Your task to perform on an android device: open app "Microsoft Outlook" Image 0: 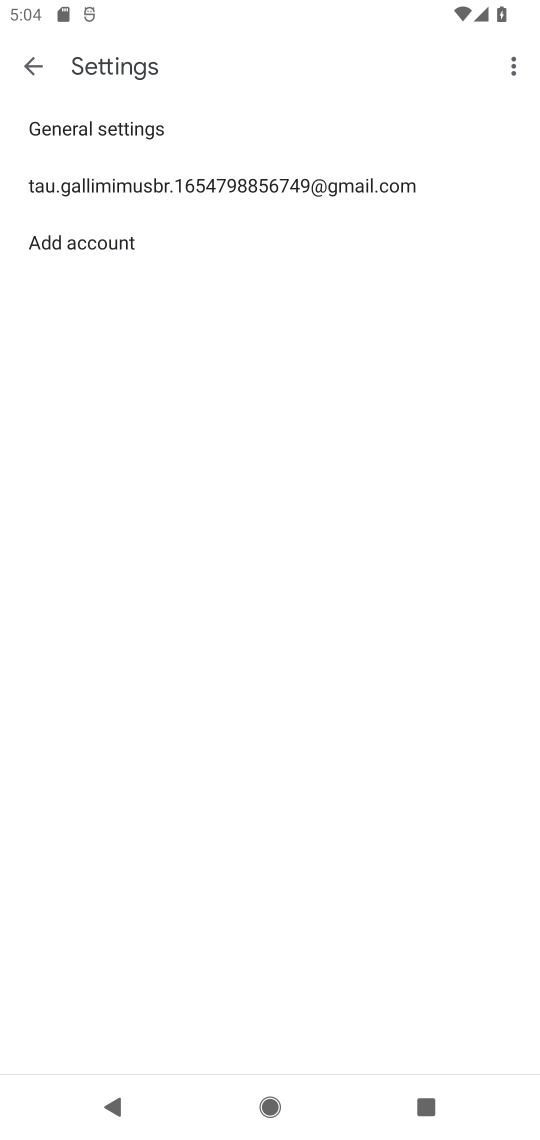
Step 0: press home button
Your task to perform on an android device: open app "Microsoft Outlook" Image 1: 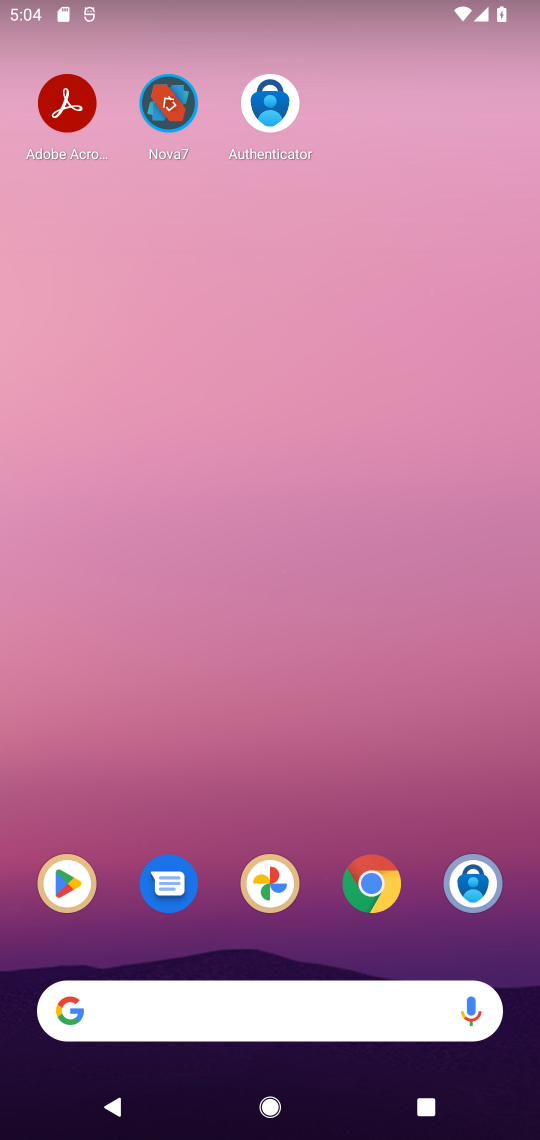
Step 1: drag from (275, 919) to (310, 444)
Your task to perform on an android device: open app "Microsoft Outlook" Image 2: 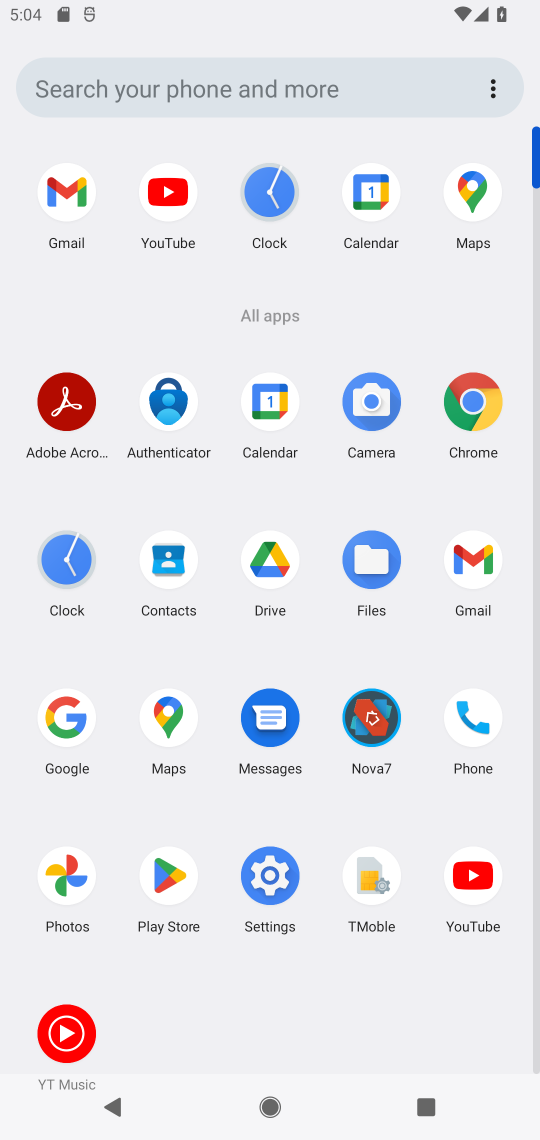
Step 2: click (176, 874)
Your task to perform on an android device: open app "Microsoft Outlook" Image 3: 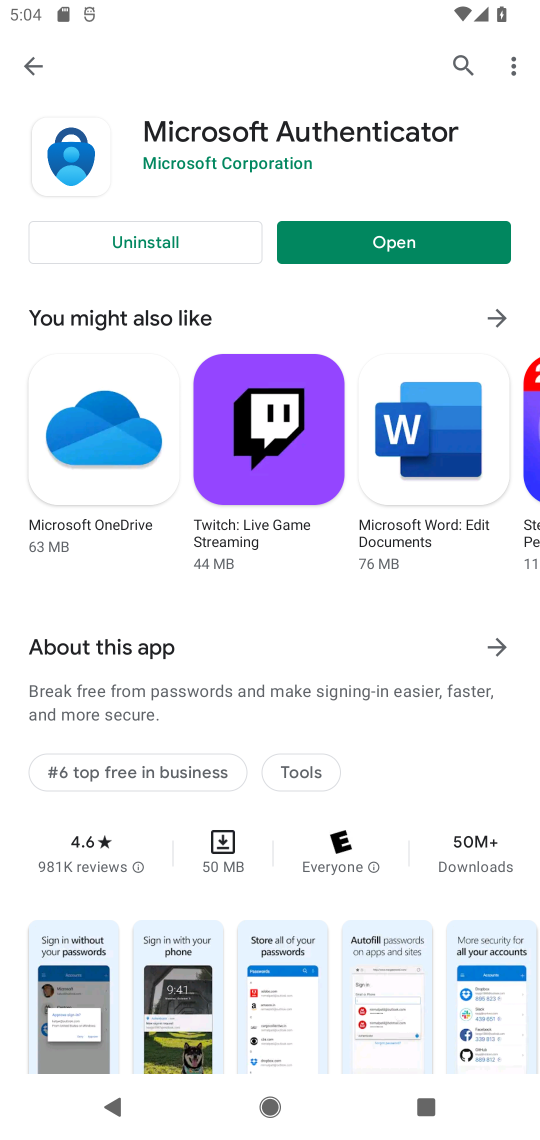
Step 3: click (25, 64)
Your task to perform on an android device: open app "Microsoft Outlook" Image 4: 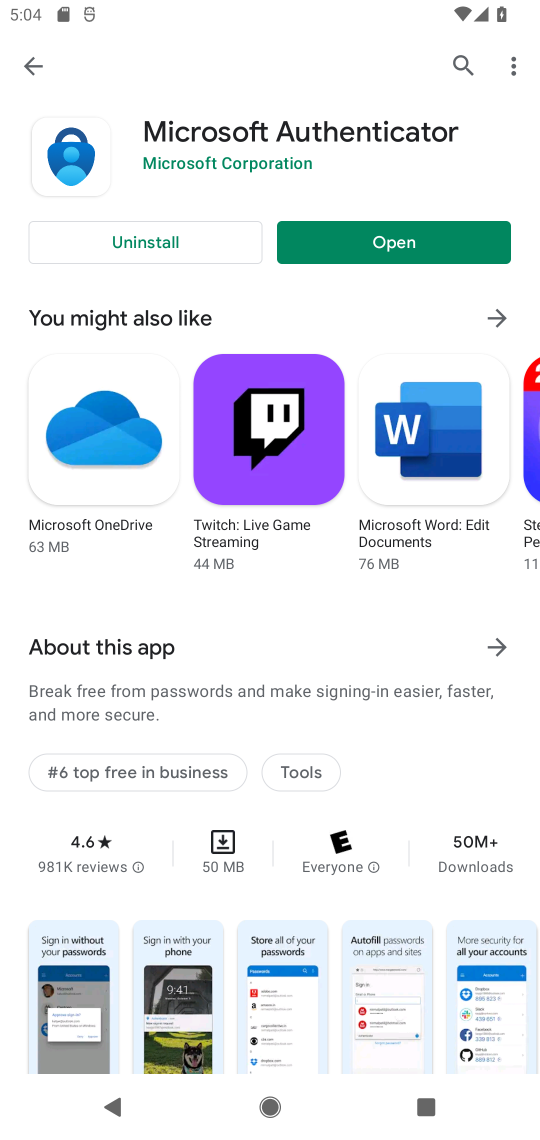
Step 4: click (32, 62)
Your task to perform on an android device: open app "Microsoft Outlook" Image 5: 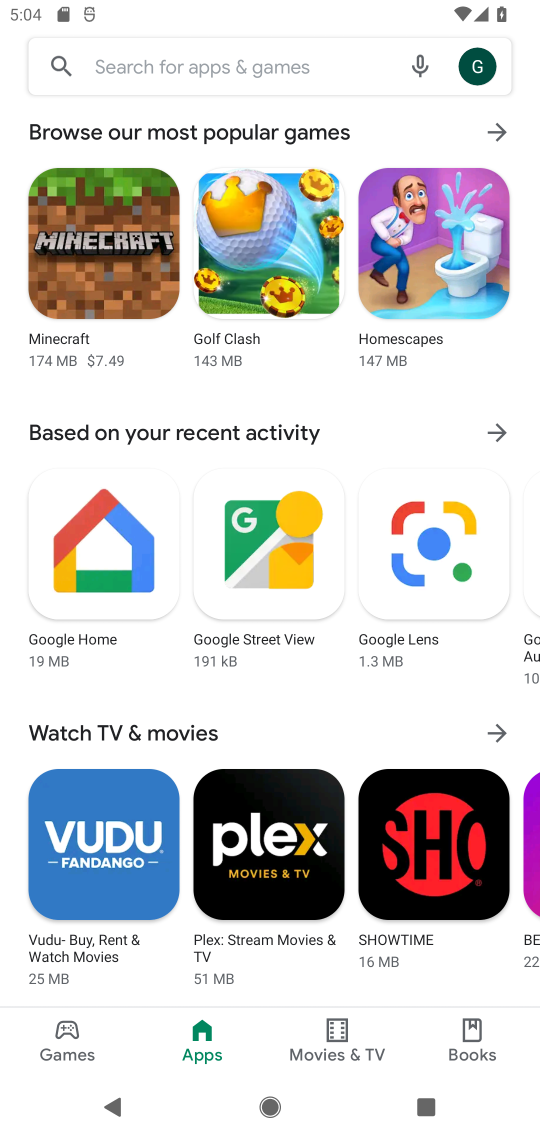
Step 5: click (138, 60)
Your task to perform on an android device: open app "Microsoft Outlook" Image 6: 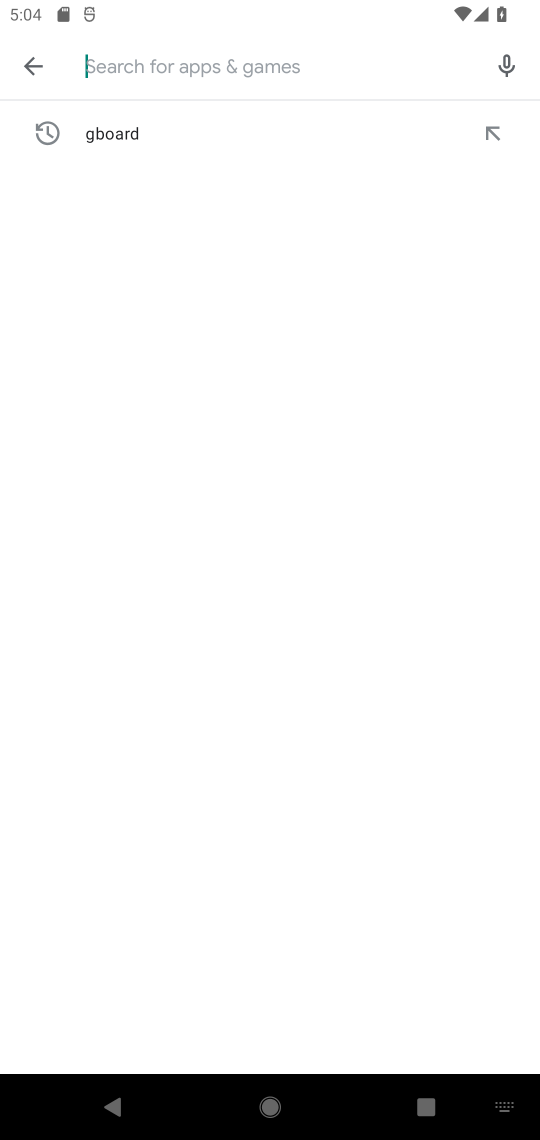
Step 6: type "Microsoft Outlook"
Your task to perform on an android device: open app "Microsoft Outlook" Image 7: 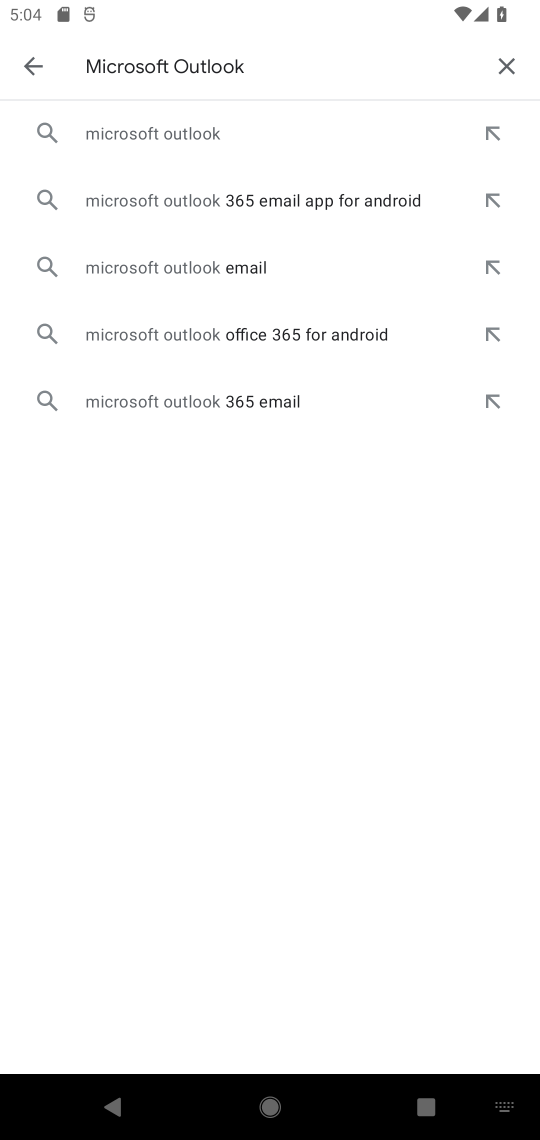
Step 7: click (189, 136)
Your task to perform on an android device: open app "Microsoft Outlook" Image 8: 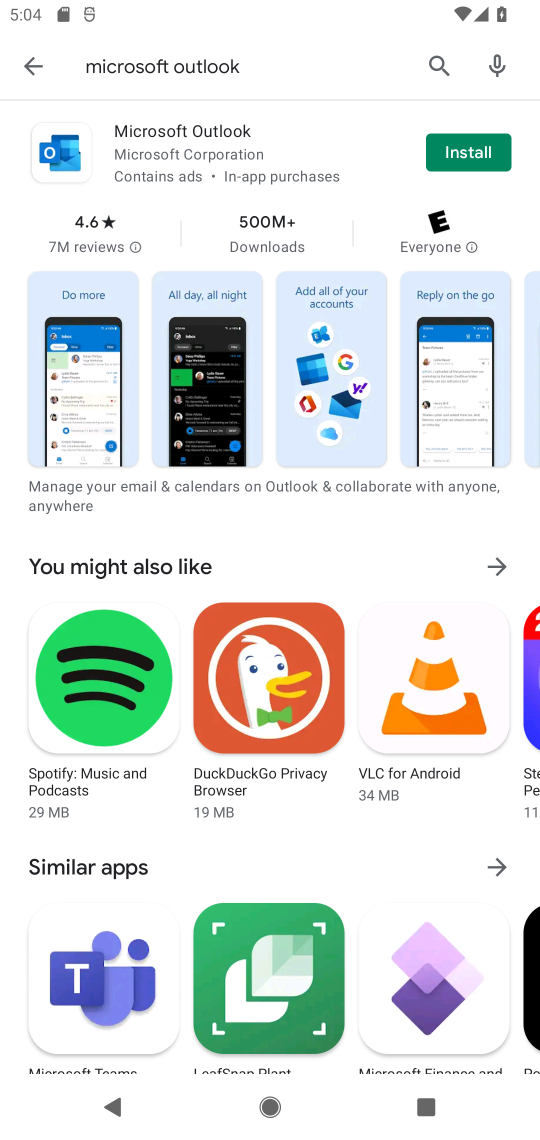
Step 8: click (458, 164)
Your task to perform on an android device: open app "Microsoft Outlook" Image 9: 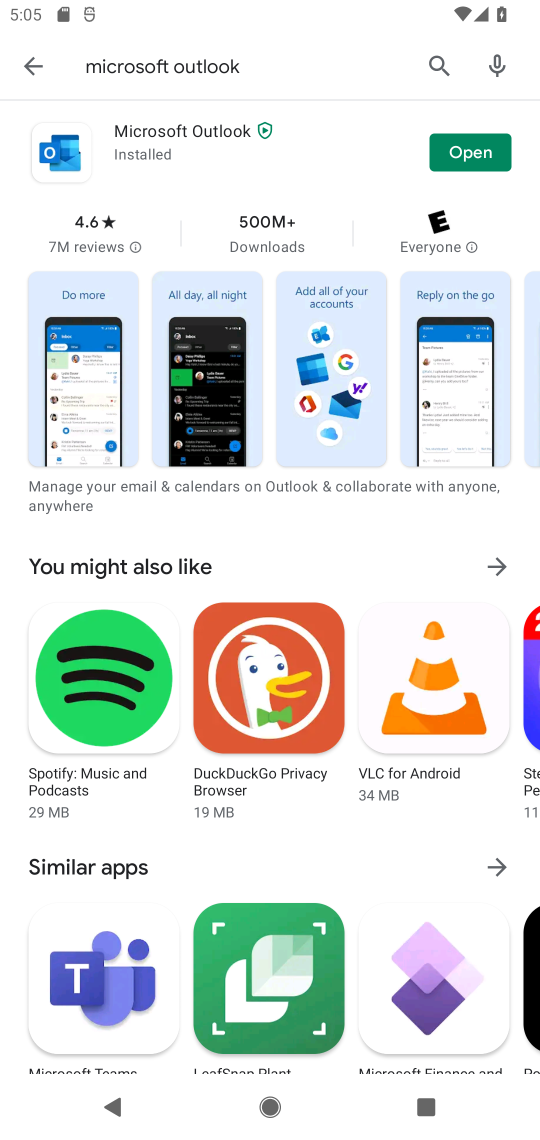
Step 9: click (454, 153)
Your task to perform on an android device: open app "Microsoft Outlook" Image 10: 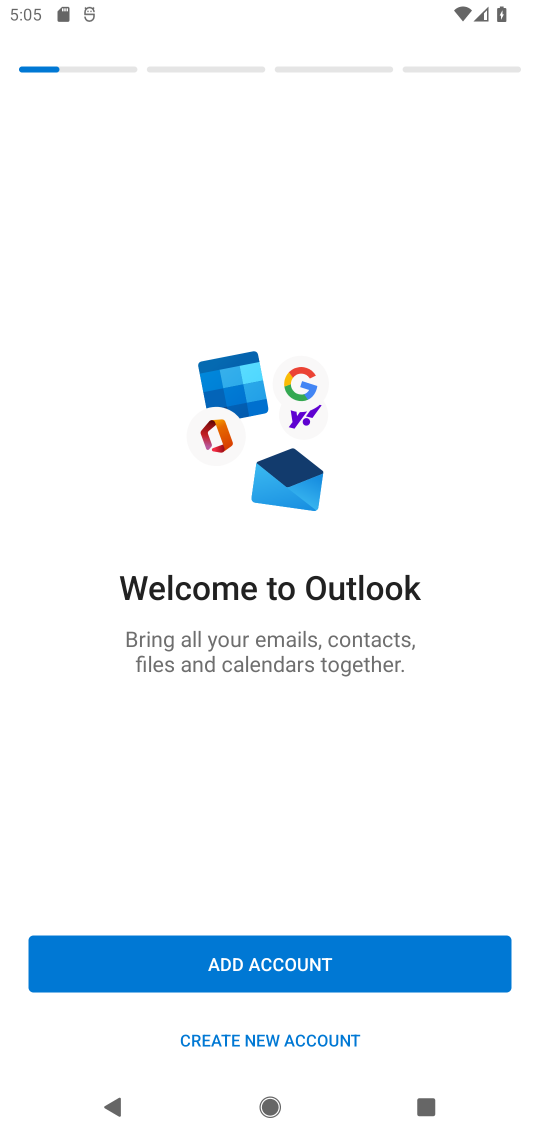
Step 10: task complete